Your task to perform on an android device: Open Google Maps and go to "Timeline" Image 0: 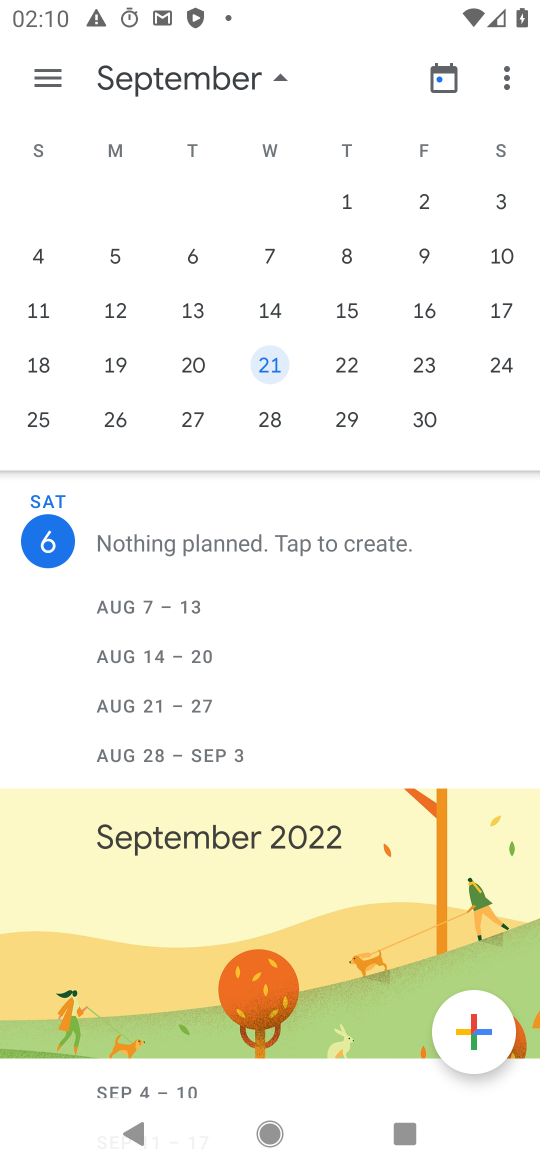
Step 0: press home button
Your task to perform on an android device: Open Google Maps and go to "Timeline" Image 1: 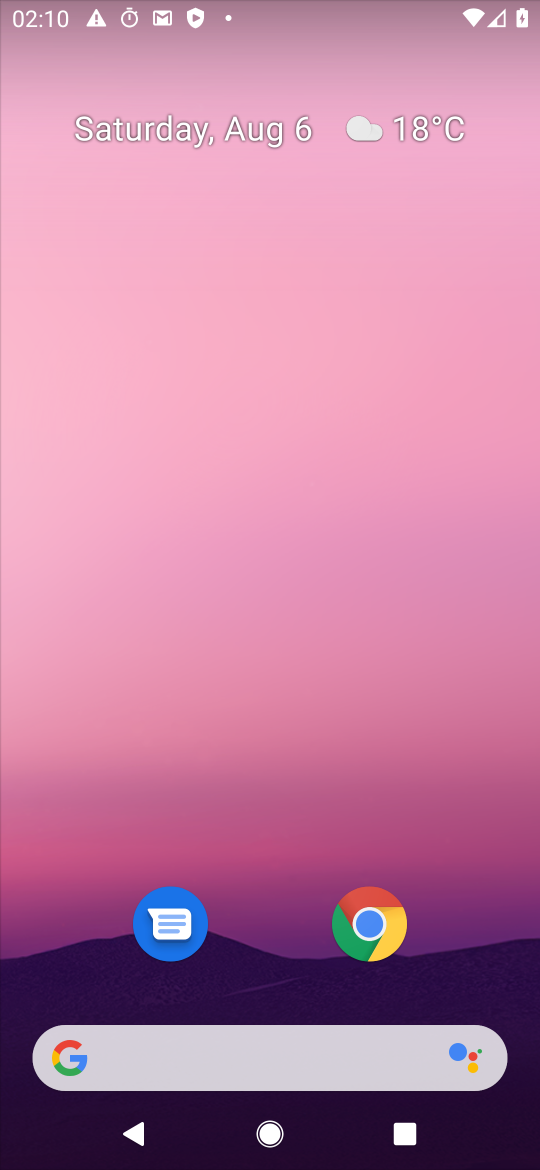
Step 1: drag from (304, 1030) to (297, 267)
Your task to perform on an android device: Open Google Maps and go to "Timeline" Image 2: 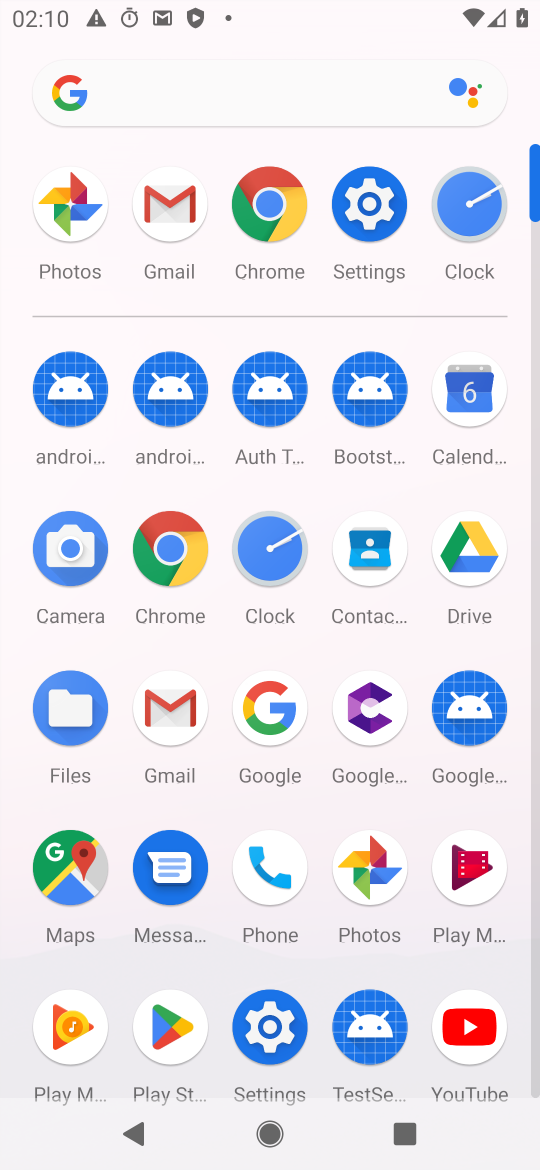
Step 2: click (74, 884)
Your task to perform on an android device: Open Google Maps and go to "Timeline" Image 3: 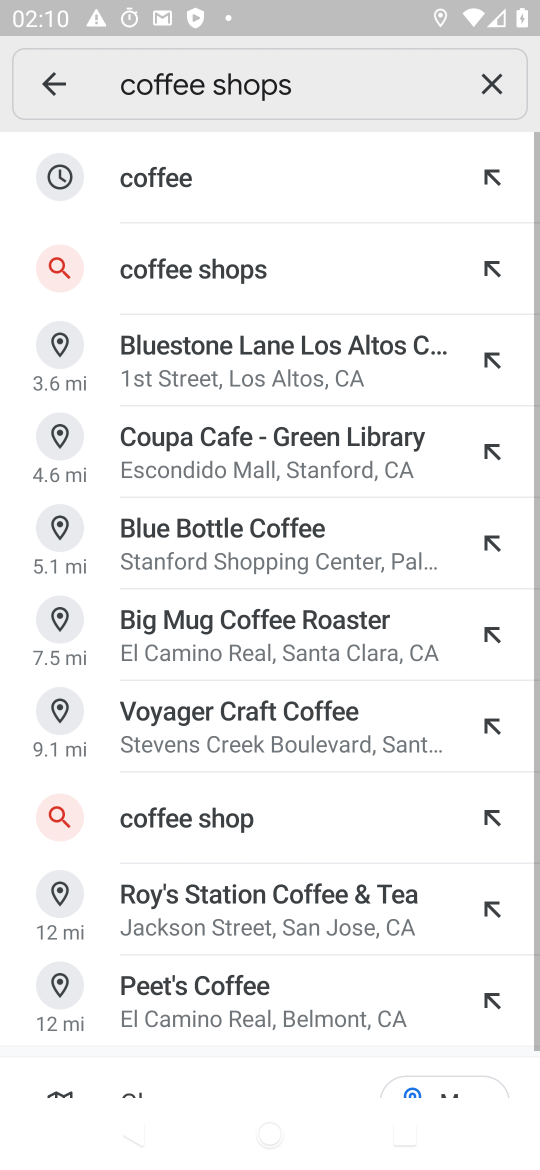
Step 3: press back button
Your task to perform on an android device: Open Google Maps and go to "Timeline" Image 4: 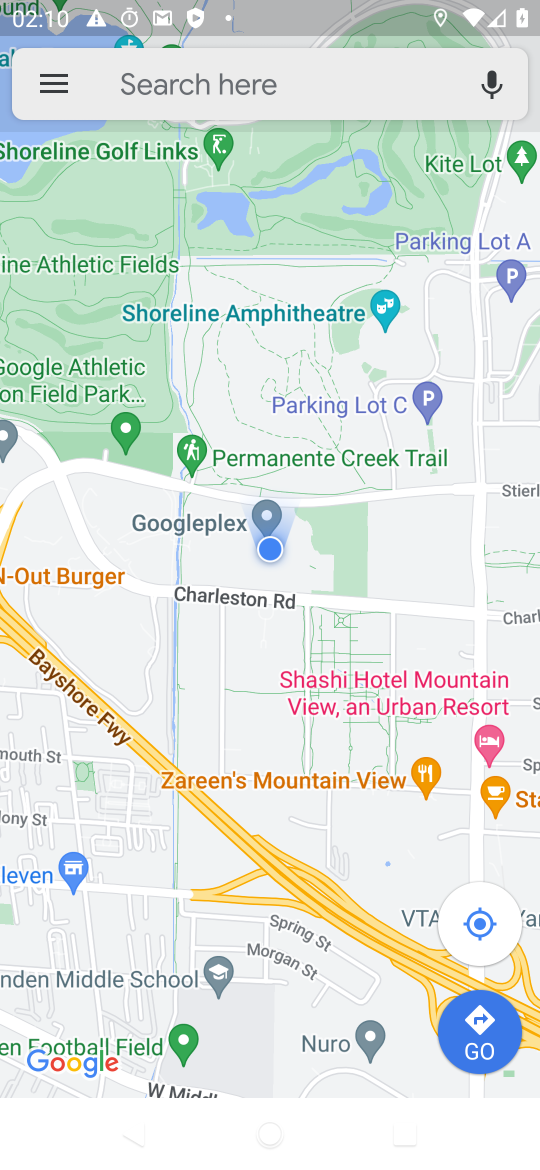
Step 4: click (53, 78)
Your task to perform on an android device: Open Google Maps and go to "Timeline" Image 5: 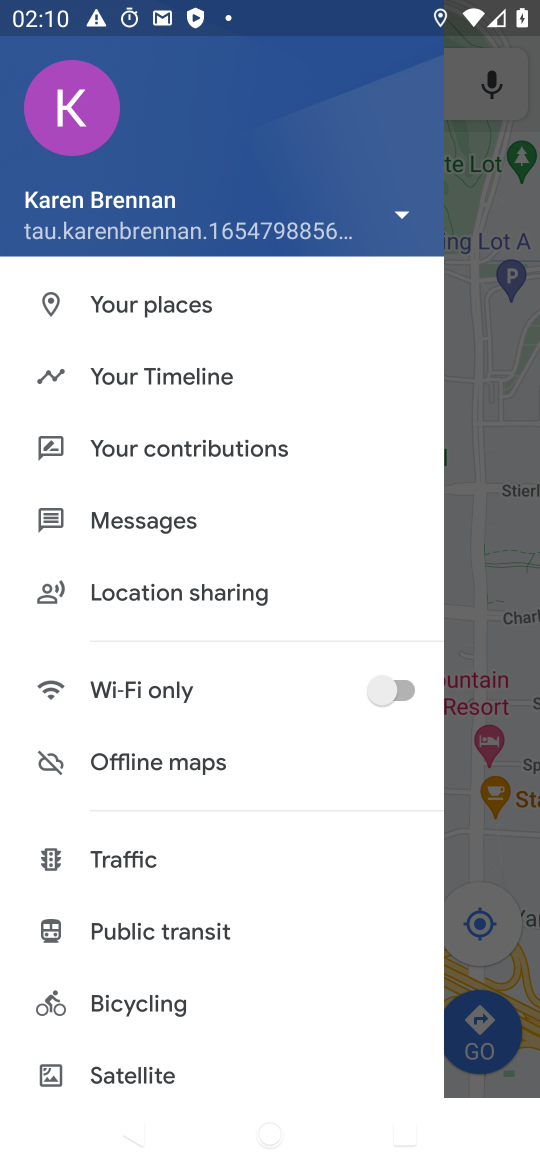
Step 5: click (221, 361)
Your task to perform on an android device: Open Google Maps and go to "Timeline" Image 6: 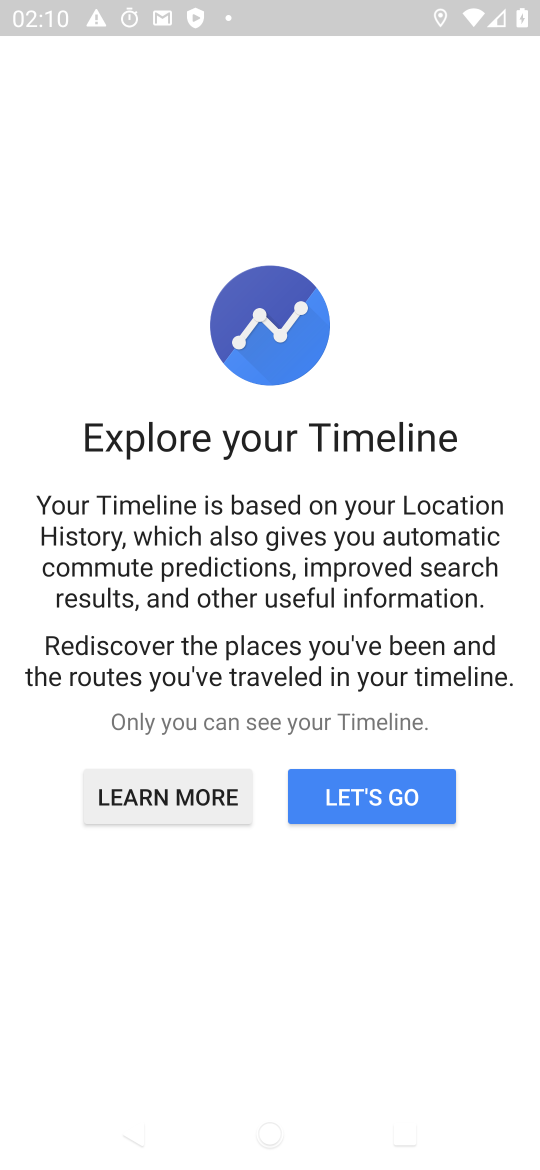
Step 6: click (349, 793)
Your task to perform on an android device: Open Google Maps and go to "Timeline" Image 7: 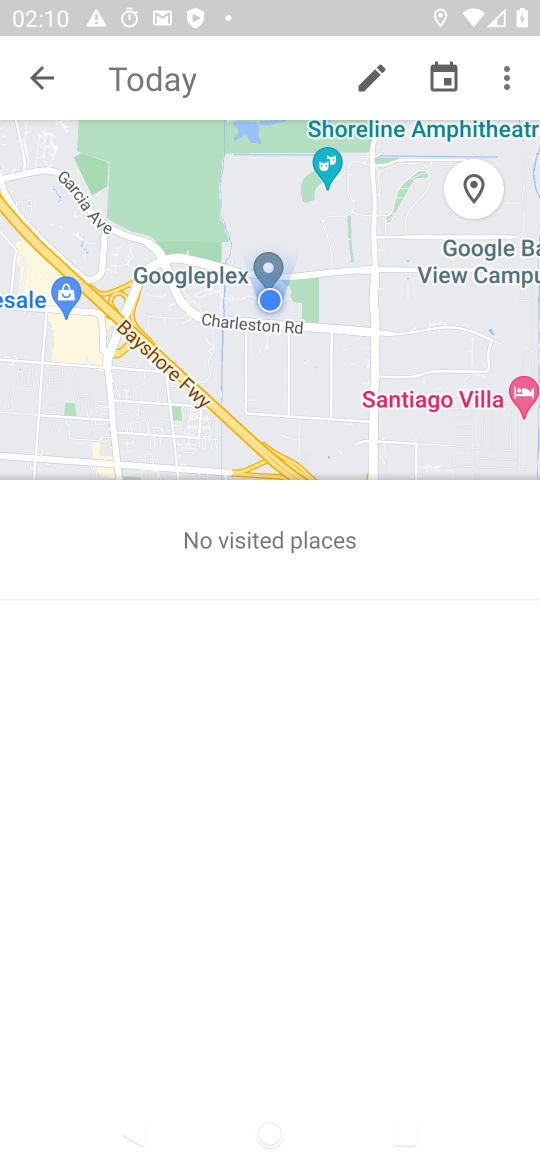
Step 7: task complete